Your task to perform on an android device: open app "ZOOM Cloud Meetings" (install if not already installed) Image 0: 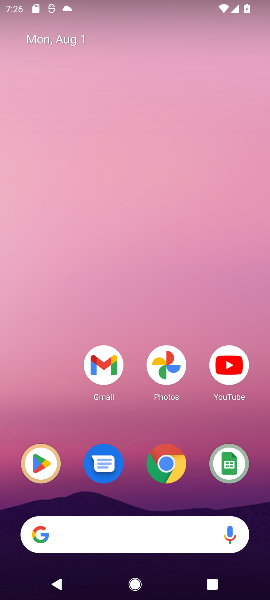
Step 0: click (32, 475)
Your task to perform on an android device: open app "ZOOM Cloud Meetings" (install if not already installed) Image 1: 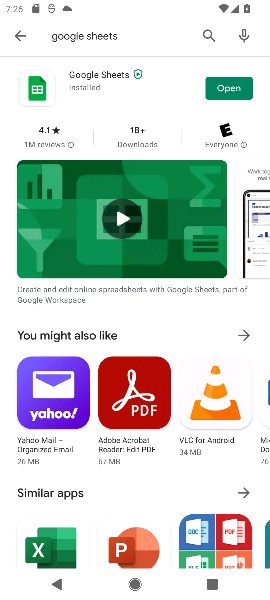
Step 1: click (219, 35)
Your task to perform on an android device: open app "ZOOM Cloud Meetings" (install if not already installed) Image 2: 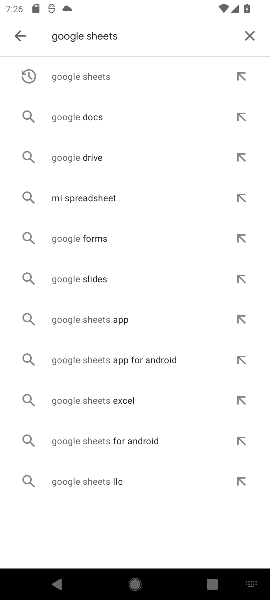
Step 2: click (242, 32)
Your task to perform on an android device: open app "ZOOM Cloud Meetings" (install if not already installed) Image 3: 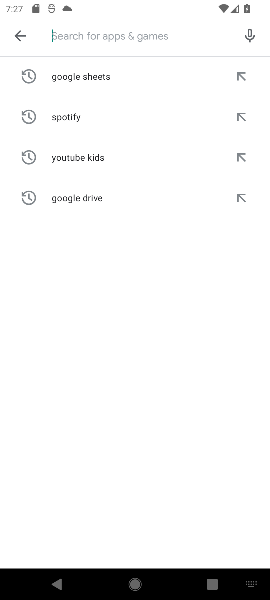
Step 3: type "zoom cloud "
Your task to perform on an android device: open app "ZOOM Cloud Meetings" (install if not already installed) Image 4: 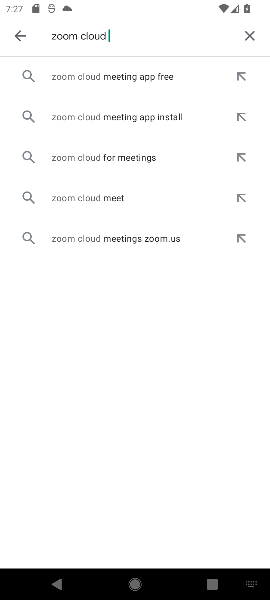
Step 4: click (44, 68)
Your task to perform on an android device: open app "ZOOM Cloud Meetings" (install if not already installed) Image 5: 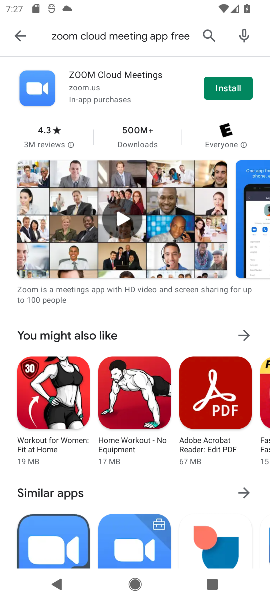
Step 5: click (225, 97)
Your task to perform on an android device: open app "ZOOM Cloud Meetings" (install if not already installed) Image 6: 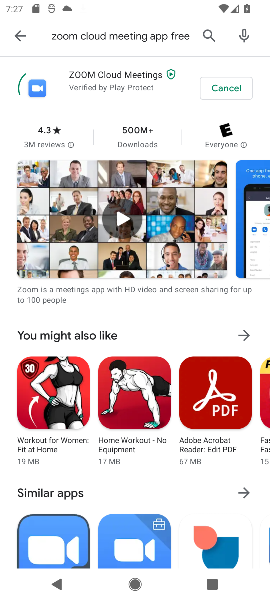
Step 6: task complete